Your task to perform on an android device: find which apps use the phone's location Image 0: 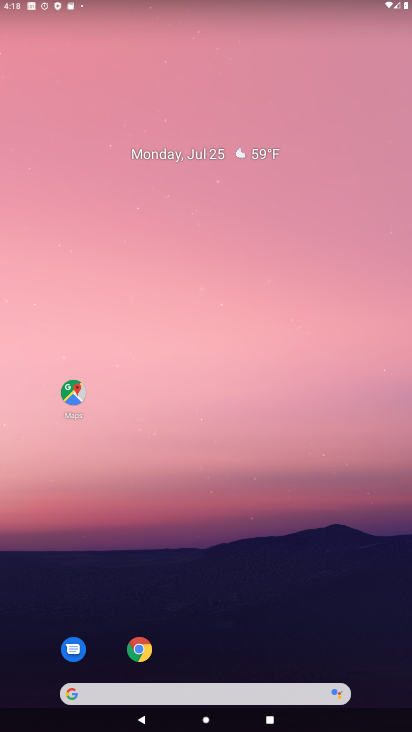
Step 0: drag from (331, 658) to (244, 104)
Your task to perform on an android device: find which apps use the phone's location Image 1: 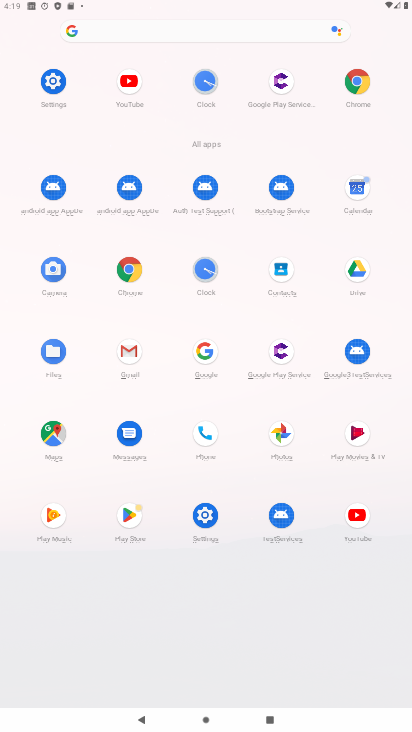
Step 1: click (45, 74)
Your task to perform on an android device: find which apps use the phone's location Image 2: 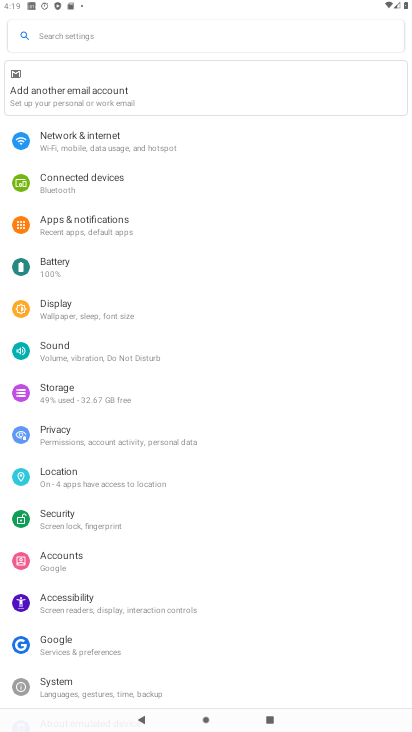
Step 2: click (135, 483)
Your task to perform on an android device: find which apps use the phone's location Image 3: 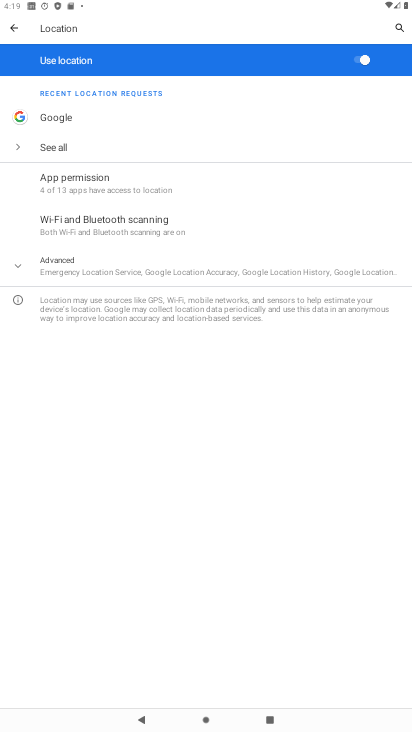
Step 3: click (156, 149)
Your task to perform on an android device: find which apps use the phone's location Image 4: 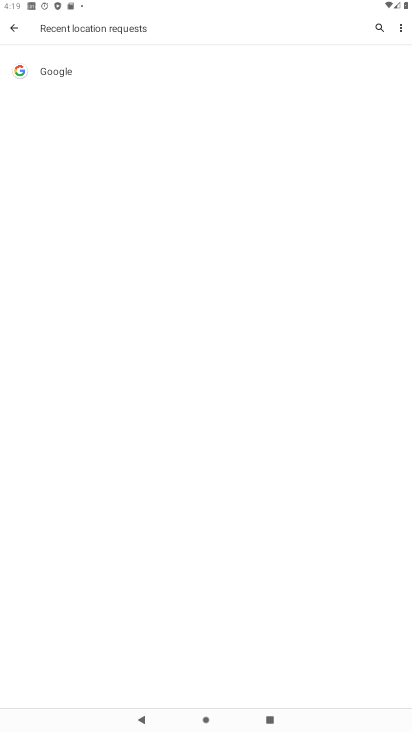
Step 4: task complete